Your task to perform on an android device: manage bookmarks in the chrome app Image 0: 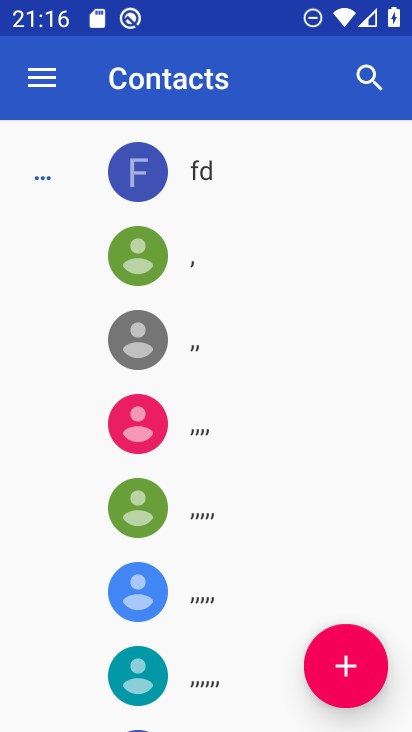
Step 0: press home button
Your task to perform on an android device: manage bookmarks in the chrome app Image 1: 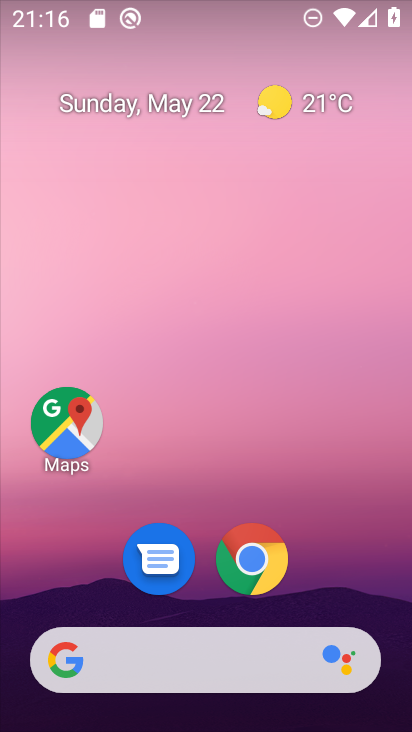
Step 1: drag from (180, 678) to (236, 106)
Your task to perform on an android device: manage bookmarks in the chrome app Image 2: 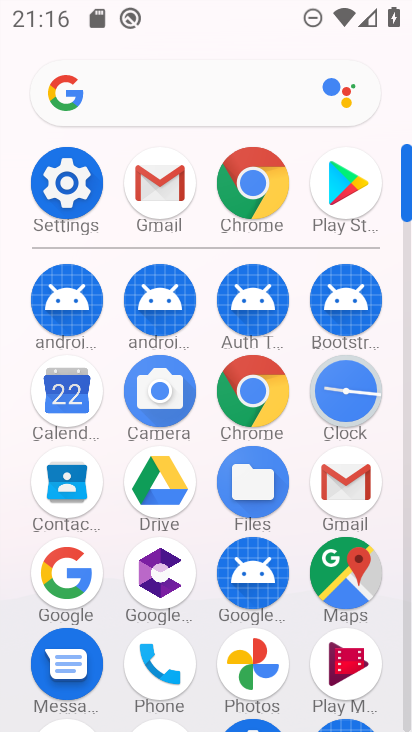
Step 2: click (270, 179)
Your task to perform on an android device: manage bookmarks in the chrome app Image 3: 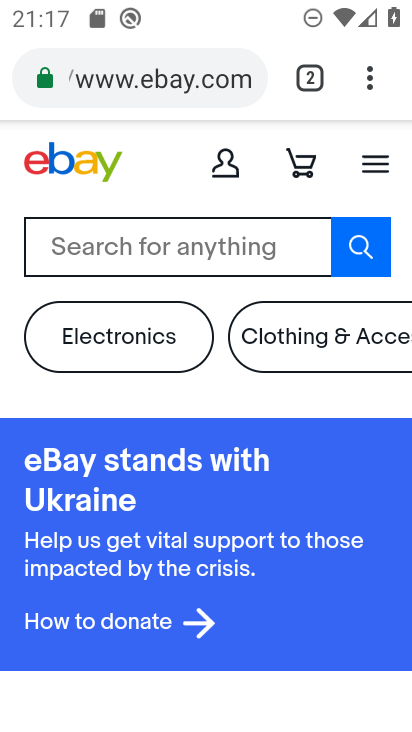
Step 3: click (361, 102)
Your task to perform on an android device: manage bookmarks in the chrome app Image 4: 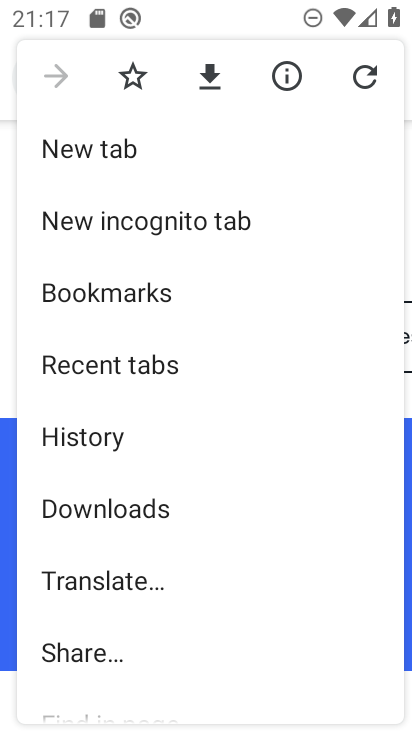
Step 4: drag from (239, 673) to (226, 515)
Your task to perform on an android device: manage bookmarks in the chrome app Image 5: 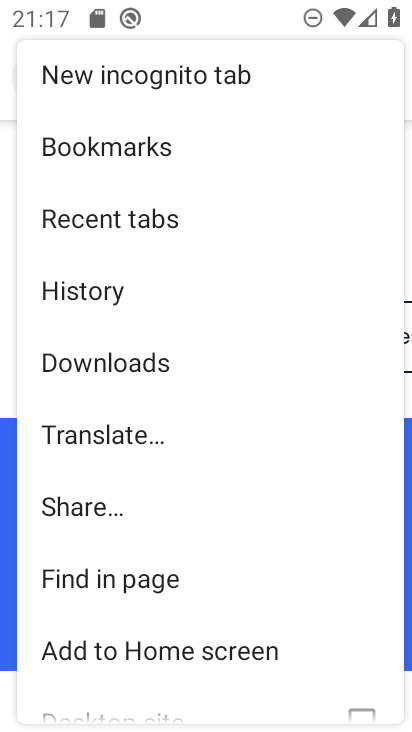
Step 5: click (143, 161)
Your task to perform on an android device: manage bookmarks in the chrome app Image 6: 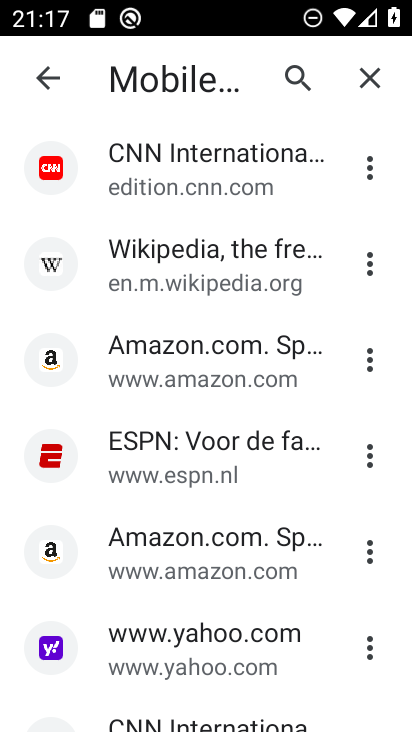
Step 6: task complete